Your task to perform on an android device: turn on sleep mode Image 0: 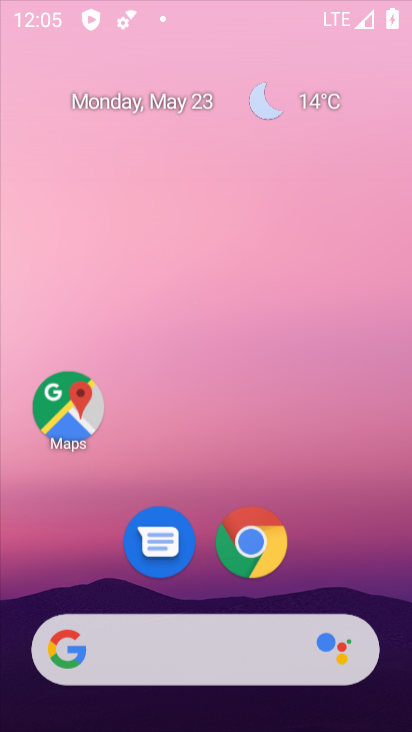
Step 0: drag from (280, 393) to (224, 130)
Your task to perform on an android device: turn on sleep mode Image 1: 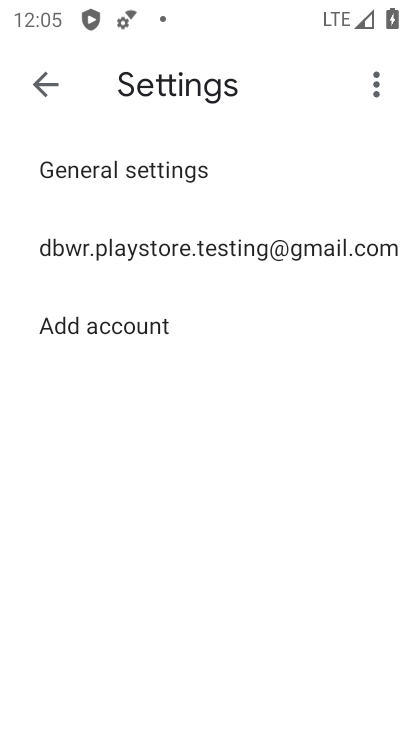
Step 1: press home button
Your task to perform on an android device: turn on sleep mode Image 2: 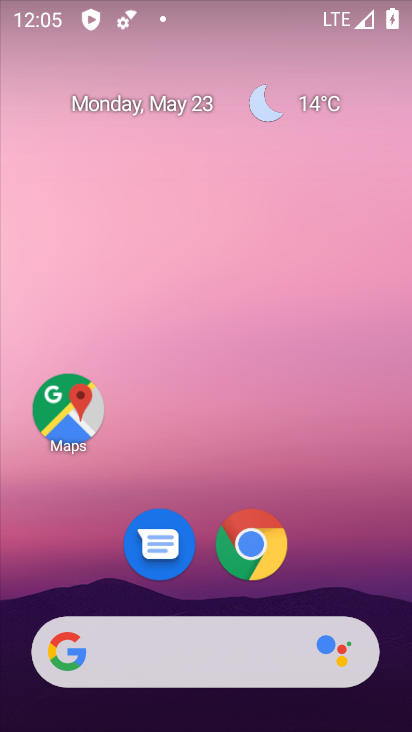
Step 2: drag from (319, 590) to (249, 155)
Your task to perform on an android device: turn on sleep mode Image 3: 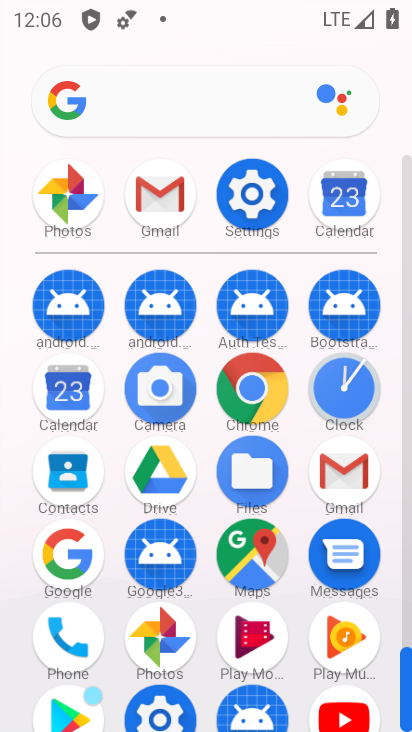
Step 3: click (255, 199)
Your task to perform on an android device: turn on sleep mode Image 4: 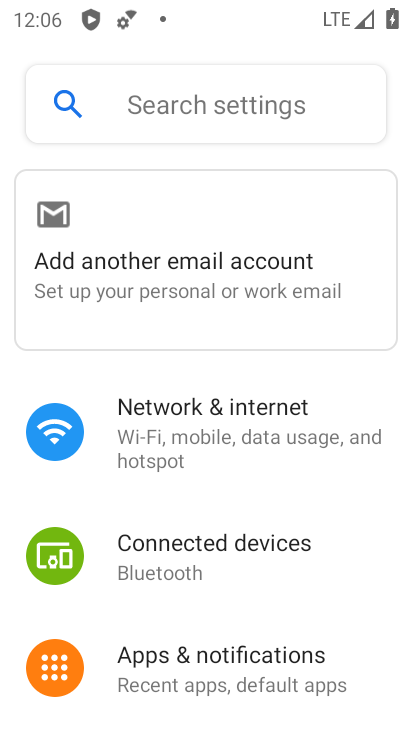
Step 4: task complete